Your task to perform on an android device: Search for vegetarian restaurants on Maps Image 0: 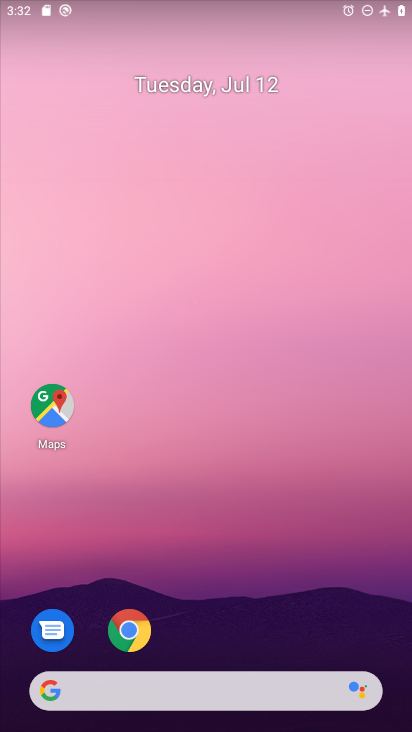
Step 0: click (55, 408)
Your task to perform on an android device: Search for vegetarian restaurants on Maps Image 1: 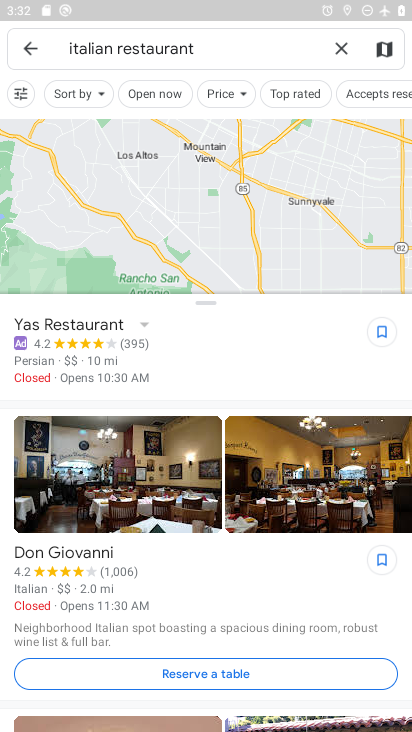
Step 1: click (335, 53)
Your task to perform on an android device: Search for vegetarian restaurants on Maps Image 2: 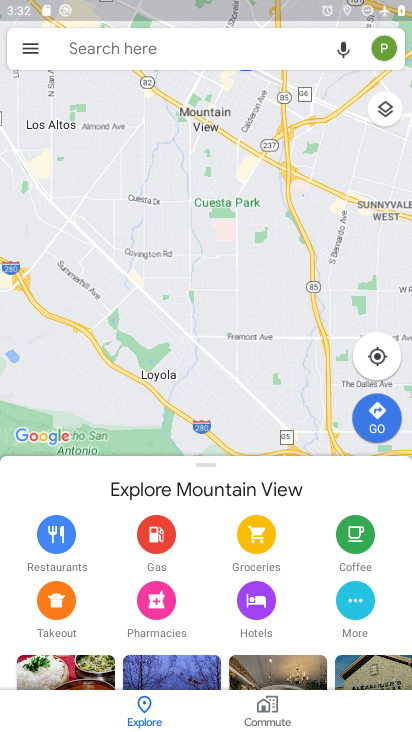
Step 2: type " vegetarian restaurants"
Your task to perform on an android device: Search for vegetarian restaurants on Maps Image 3: 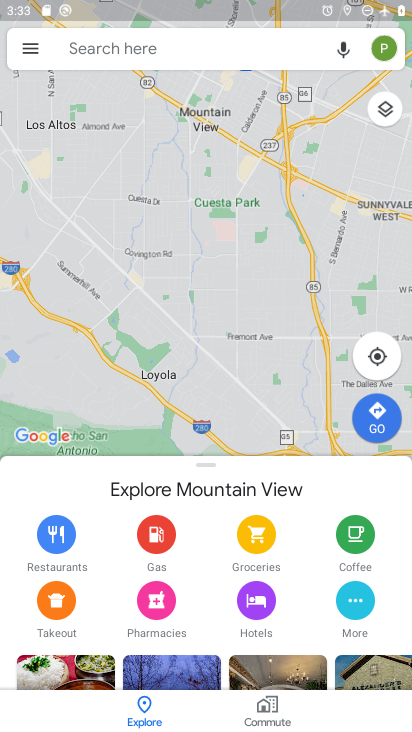
Step 3: click (206, 44)
Your task to perform on an android device: Search for vegetarian restaurants on Maps Image 4: 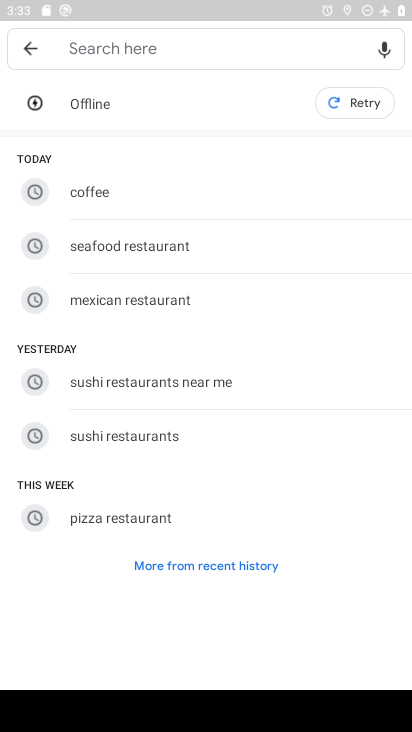
Step 4: type "vegetarian restaurants"
Your task to perform on an android device: Search for vegetarian restaurants on Maps Image 5: 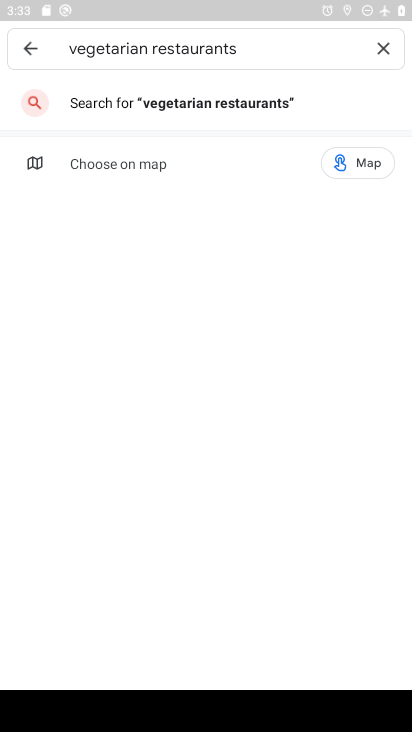
Step 5: click (210, 89)
Your task to perform on an android device: Search for vegetarian restaurants on Maps Image 6: 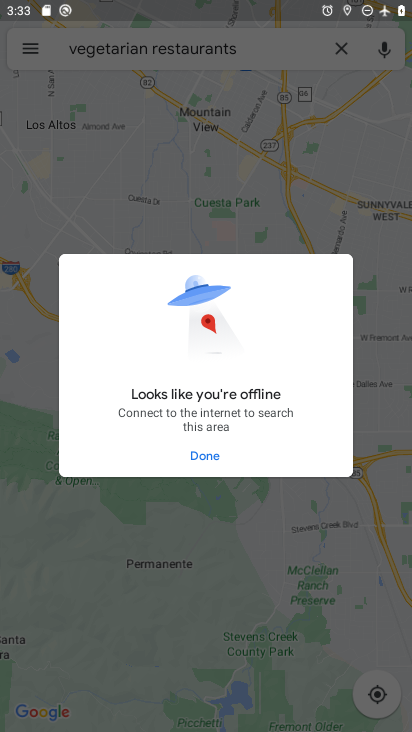
Step 6: task complete